Your task to perform on an android device: Go to battery settings Image 0: 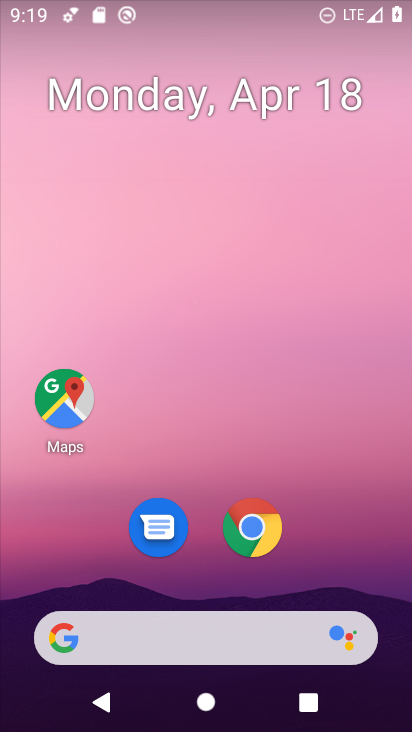
Step 0: drag from (387, 564) to (205, 35)
Your task to perform on an android device: Go to battery settings Image 1: 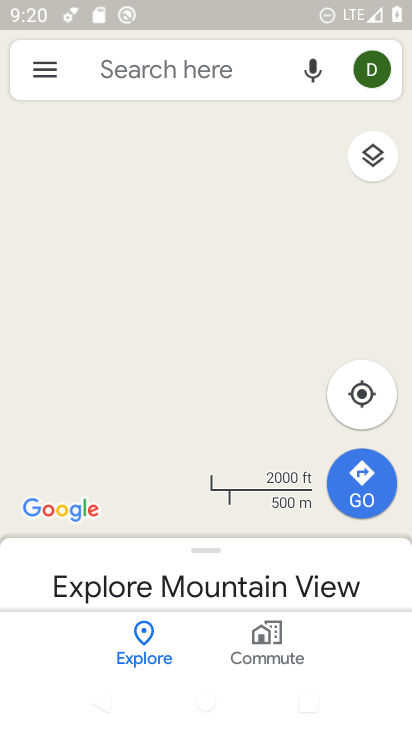
Step 1: press back button
Your task to perform on an android device: Go to battery settings Image 2: 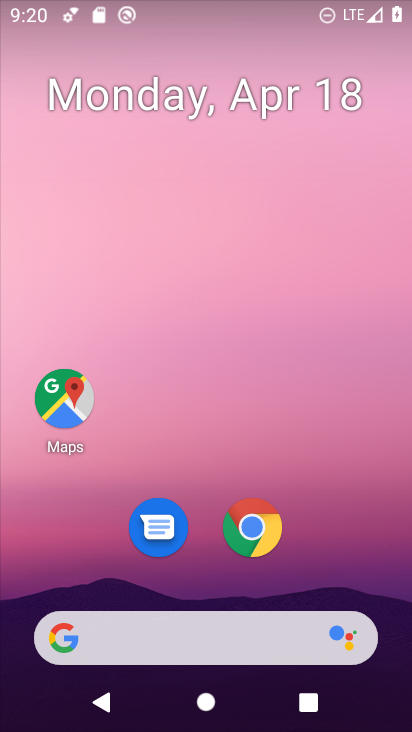
Step 2: drag from (353, 588) to (269, 1)
Your task to perform on an android device: Go to battery settings Image 3: 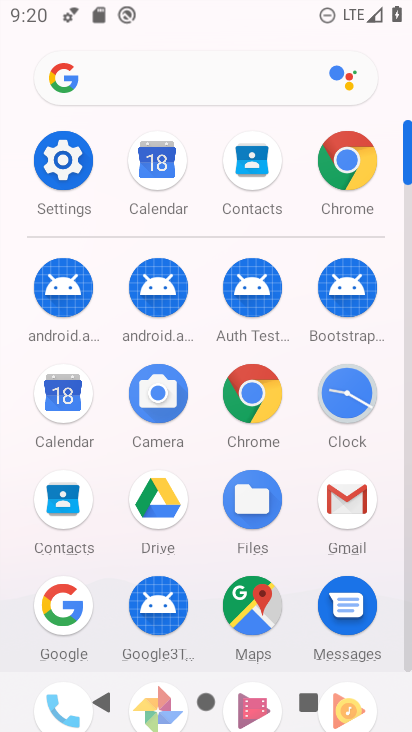
Step 3: click (63, 163)
Your task to perform on an android device: Go to battery settings Image 4: 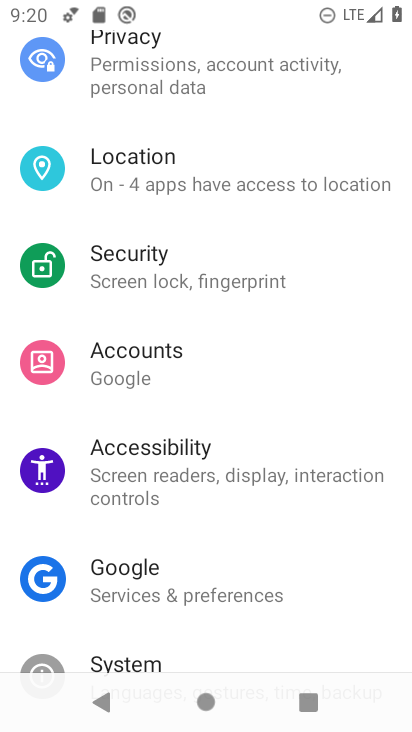
Step 4: drag from (244, 159) to (272, 471)
Your task to perform on an android device: Go to battery settings Image 5: 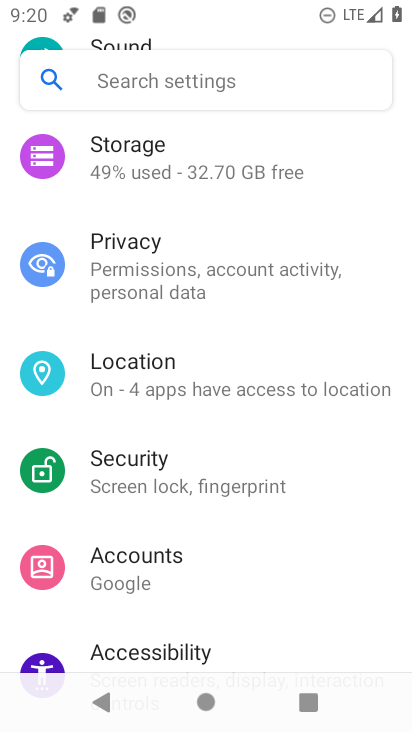
Step 5: drag from (221, 196) to (244, 587)
Your task to perform on an android device: Go to battery settings Image 6: 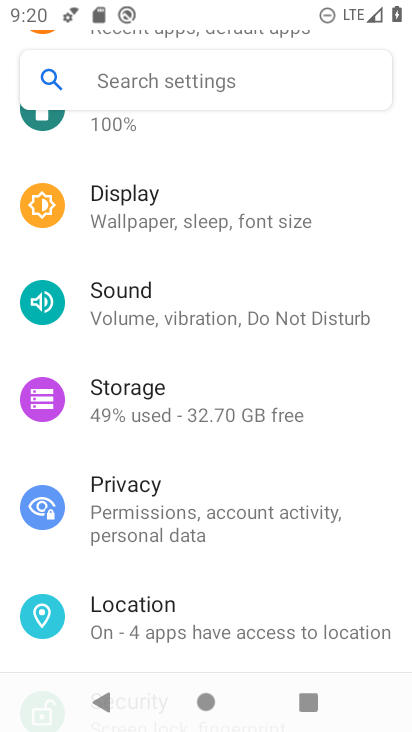
Step 6: drag from (203, 236) to (215, 539)
Your task to perform on an android device: Go to battery settings Image 7: 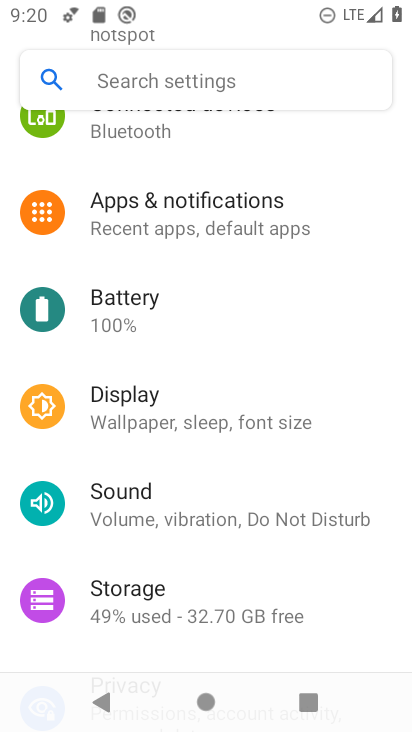
Step 7: click (152, 308)
Your task to perform on an android device: Go to battery settings Image 8: 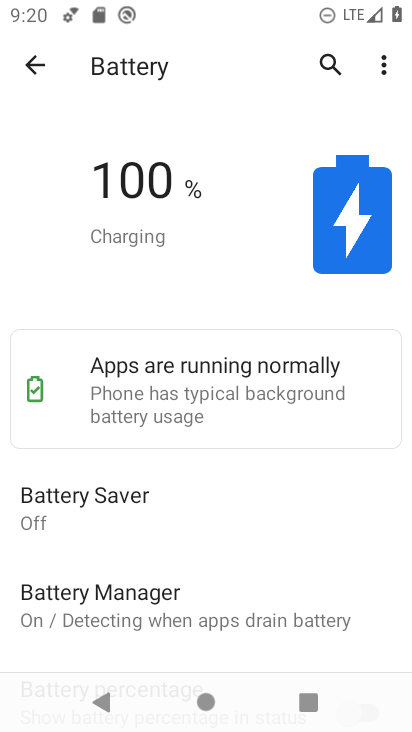
Step 8: task complete